Your task to perform on an android device: open device folders in google photos Image 0: 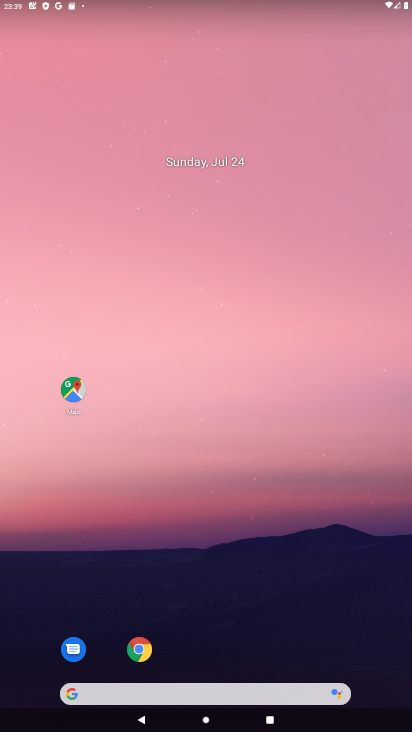
Step 0: press home button
Your task to perform on an android device: open device folders in google photos Image 1: 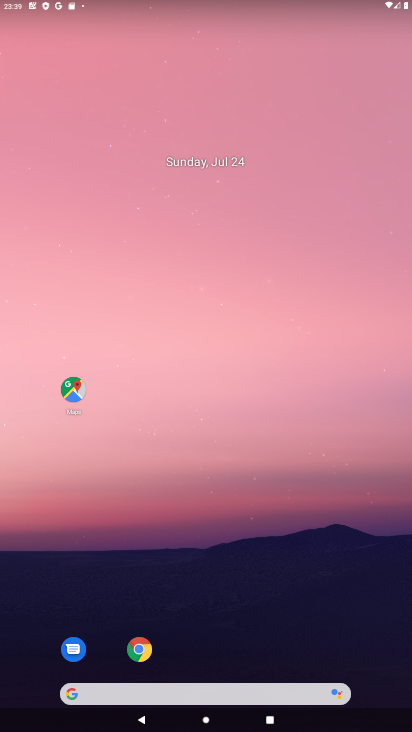
Step 1: drag from (201, 662) to (211, 6)
Your task to perform on an android device: open device folders in google photos Image 2: 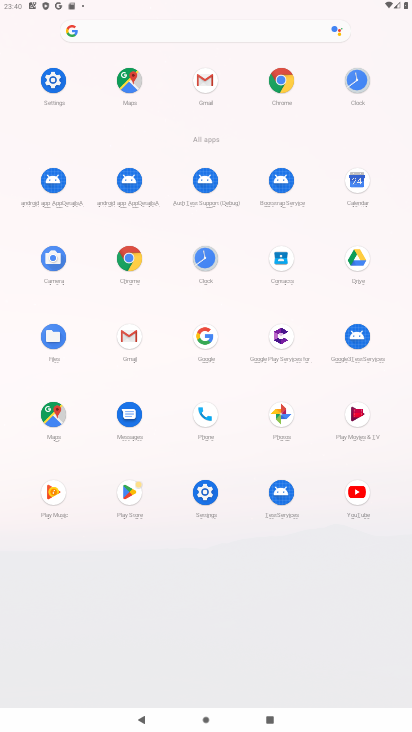
Step 2: click (281, 408)
Your task to perform on an android device: open device folders in google photos Image 3: 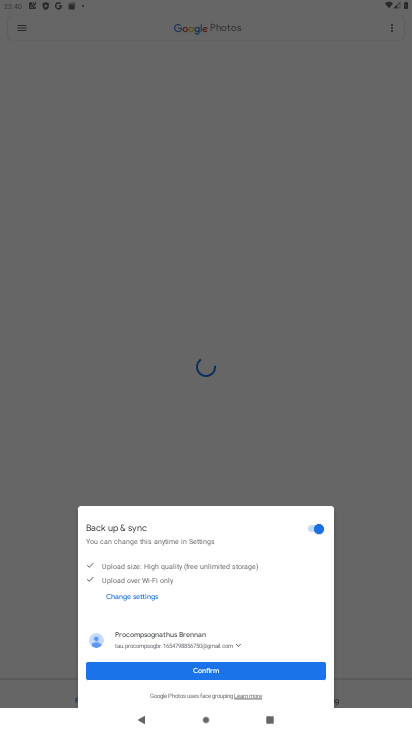
Step 3: click (200, 666)
Your task to perform on an android device: open device folders in google photos Image 4: 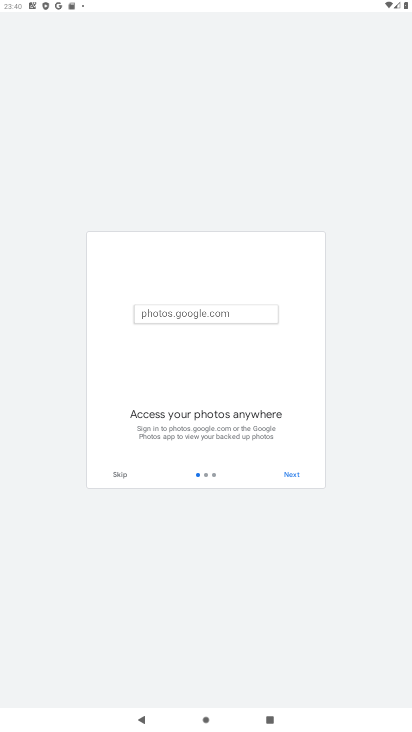
Step 4: click (288, 475)
Your task to perform on an android device: open device folders in google photos Image 5: 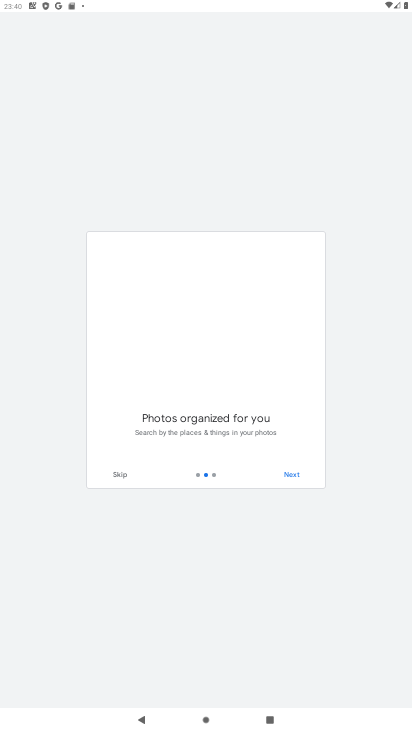
Step 5: click (293, 473)
Your task to perform on an android device: open device folders in google photos Image 6: 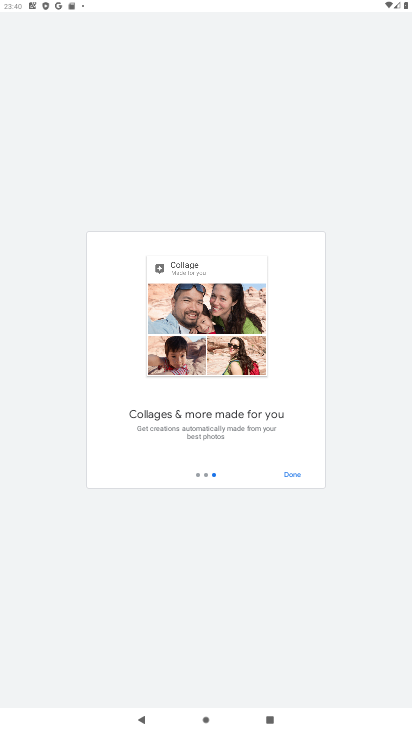
Step 6: click (292, 472)
Your task to perform on an android device: open device folders in google photos Image 7: 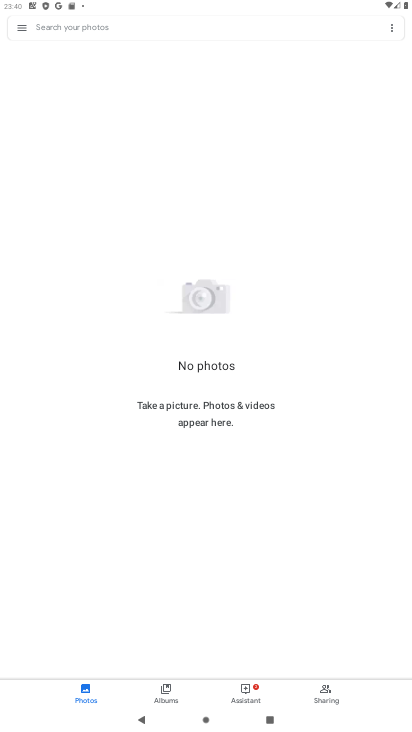
Step 7: click (20, 25)
Your task to perform on an android device: open device folders in google photos Image 8: 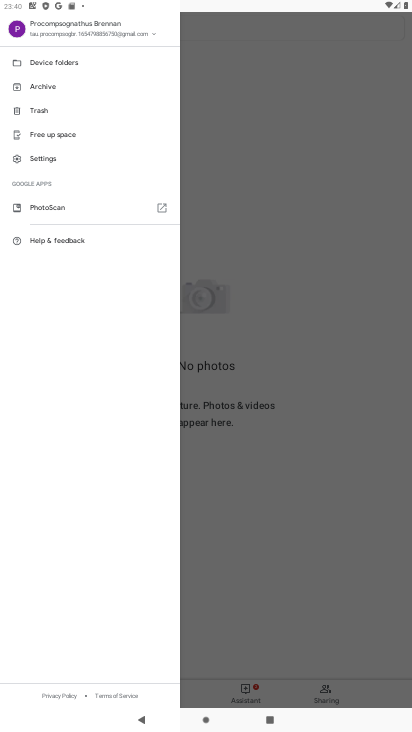
Step 8: click (60, 155)
Your task to perform on an android device: open device folders in google photos Image 9: 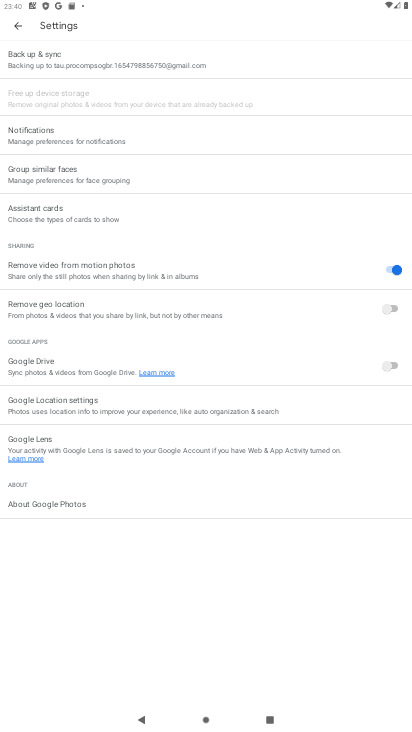
Step 9: click (9, 25)
Your task to perform on an android device: open device folders in google photos Image 10: 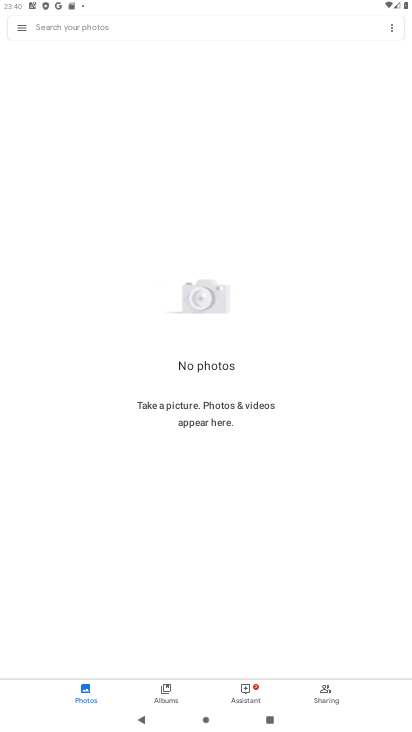
Step 10: click (22, 20)
Your task to perform on an android device: open device folders in google photos Image 11: 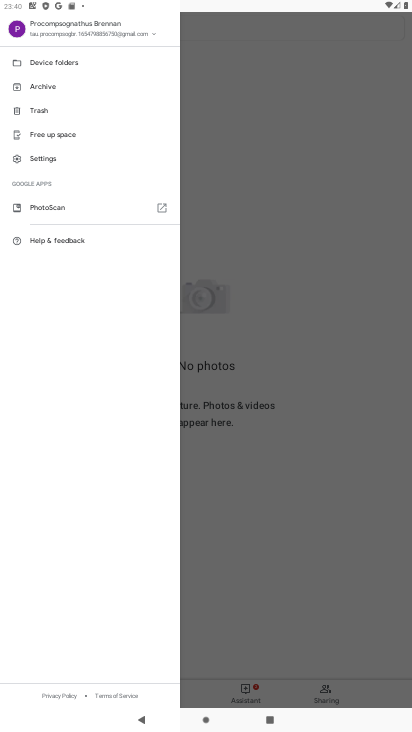
Step 11: click (76, 58)
Your task to perform on an android device: open device folders in google photos Image 12: 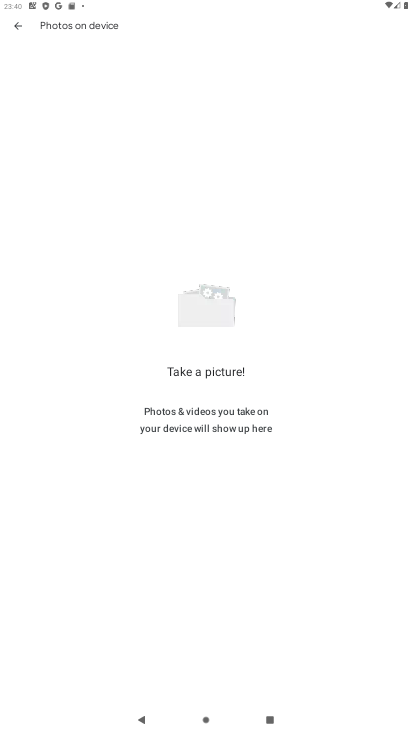
Step 12: task complete